Your task to perform on an android device: turn off sleep mode Image 0: 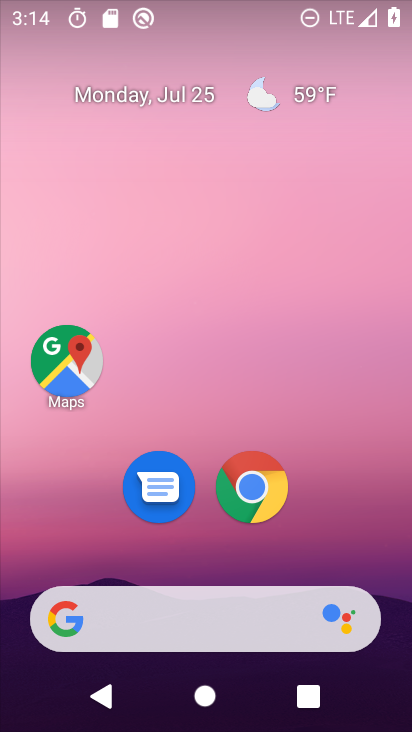
Step 0: drag from (147, 579) to (244, 3)
Your task to perform on an android device: turn off sleep mode Image 1: 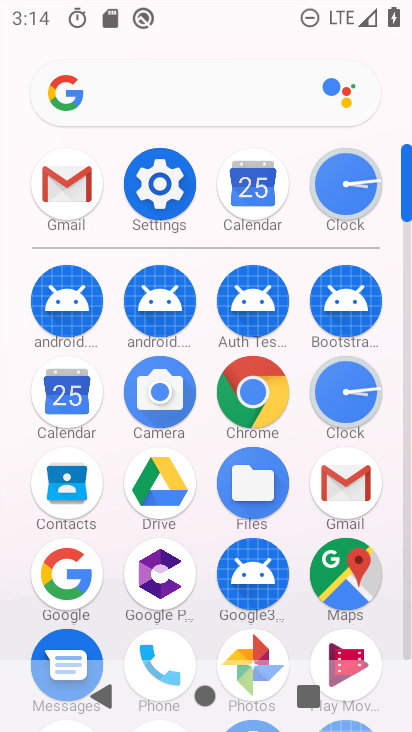
Step 1: click (162, 185)
Your task to perform on an android device: turn off sleep mode Image 2: 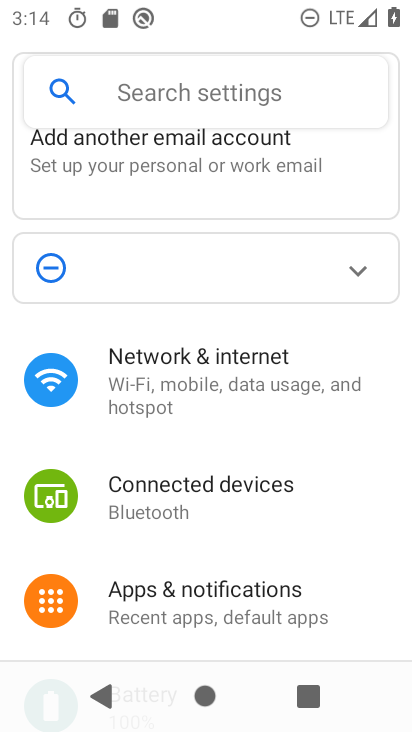
Step 2: click (200, 85)
Your task to perform on an android device: turn off sleep mode Image 3: 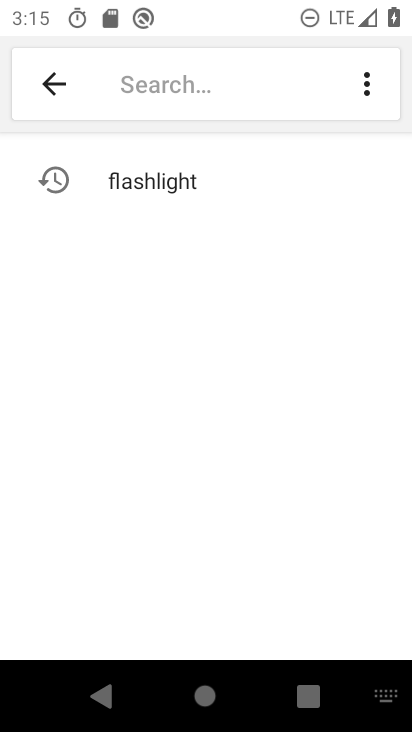
Step 3: type "sleep mode"
Your task to perform on an android device: turn off sleep mode Image 4: 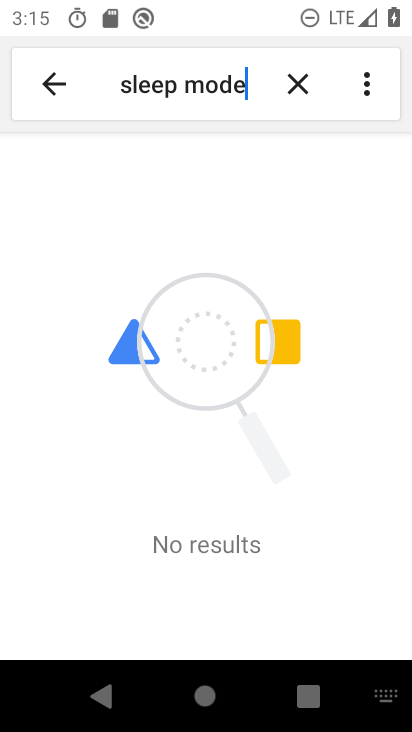
Step 4: task complete